Your task to perform on an android device: turn off improve location accuracy Image 0: 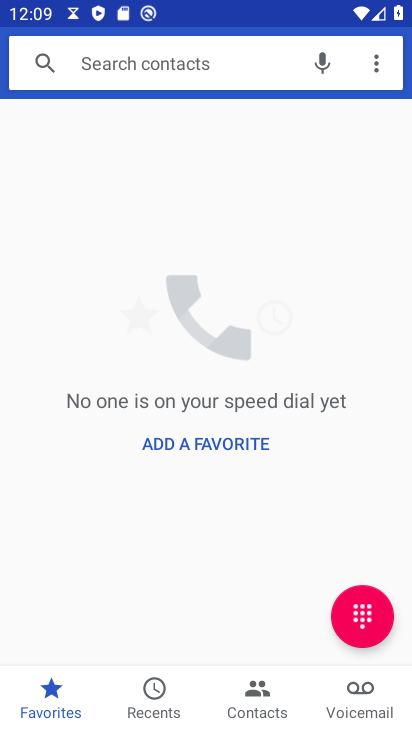
Step 0: press back button
Your task to perform on an android device: turn off improve location accuracy Image 1: 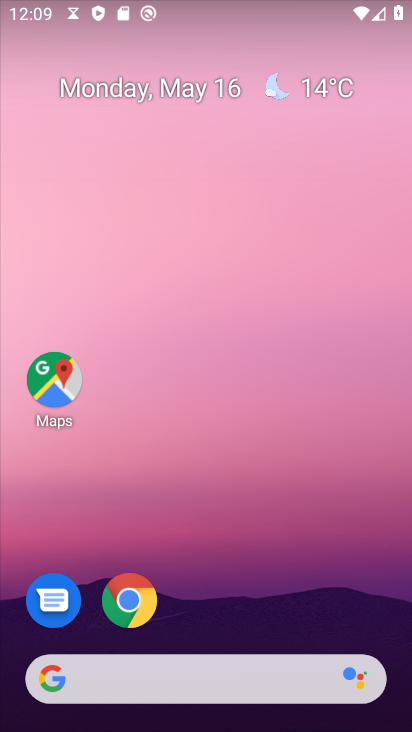
Step 1: drag from (249, 561) to (261, 29)
Your task to perform on an android device: turn off improve location accuracy Image 2: 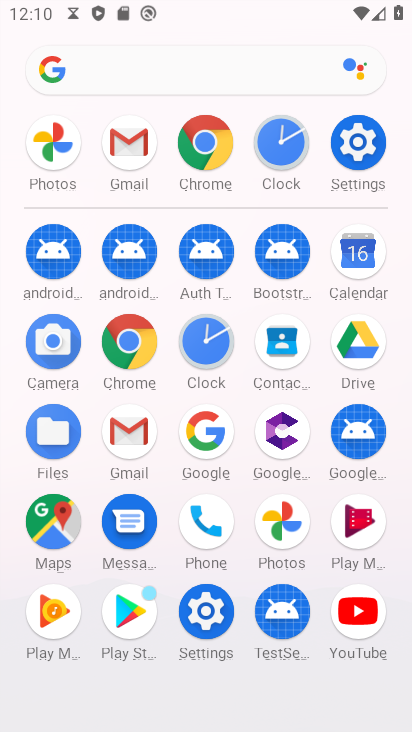
Step 2: drag from (7, 618) to (9, 277)
Your task to perform on an android device: turn off improve location accuracy Image 3: 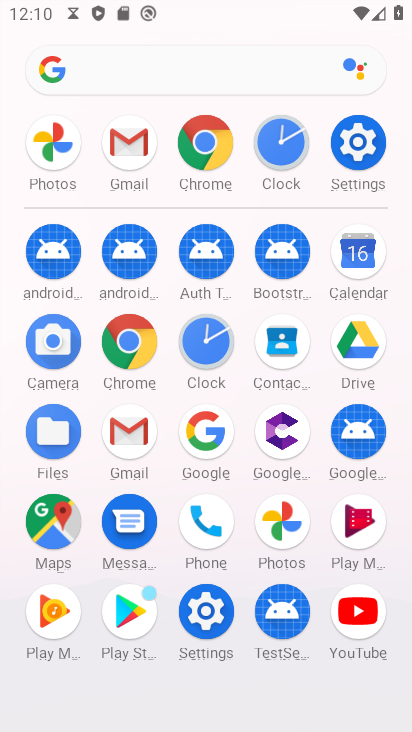
Step 3: click (205, 607)
Your task to perform on an android device: turn off improve location accuracy Image 4: 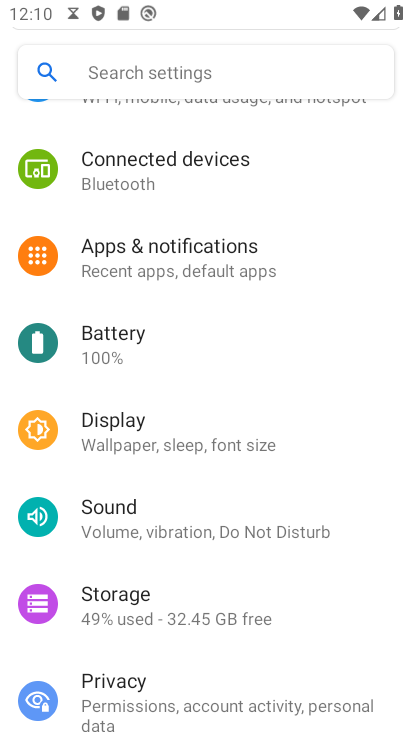
Step 4: drag from (250, 638) to (307, 185)
Your task to perform on an android device: turn off improve location accuracy Image 5: 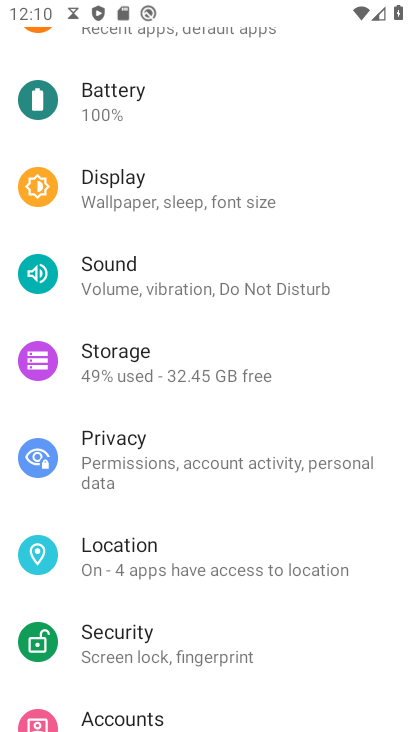
Step 5: drag from (221, 640) to (269, 203)
Your task to perform on an android device: turn off improve location accuracy Image 6: 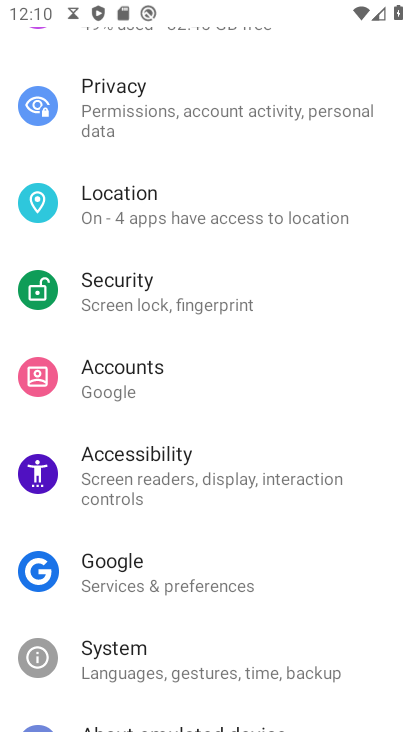
Step 6: drag from (278, 686) to (287, 275)
Your task to perform on an android device: turn off improve location accuracy Image 7: 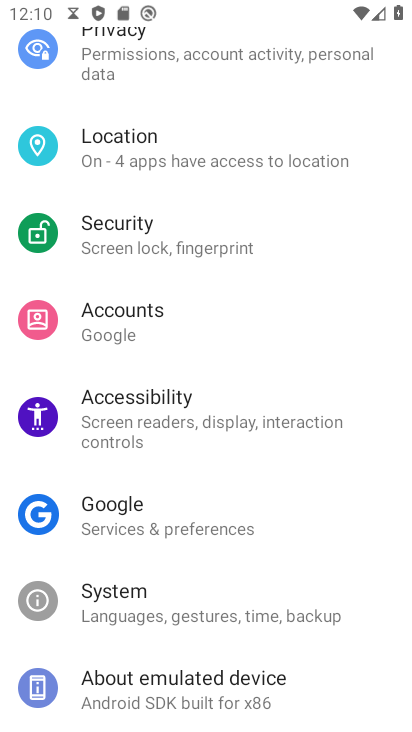
Step 7: drag from (238, 229) to (217, 517)
Your task to perform on an android device: turn off improve location accuracy Image 8: 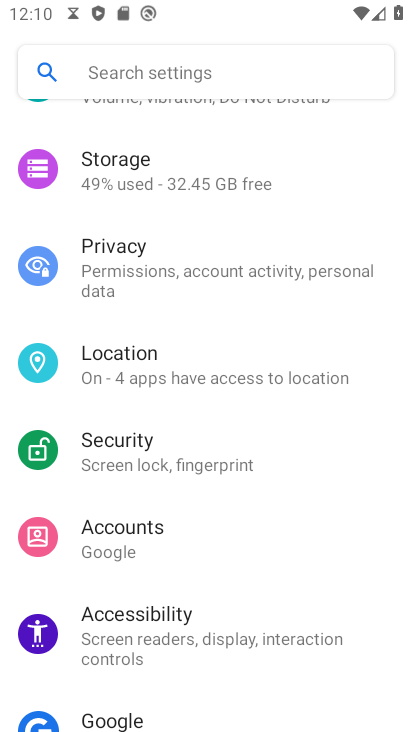
Step 8: click (166, 359)
Your task to perform on an android device: turn off improve location accuracy Image 9: 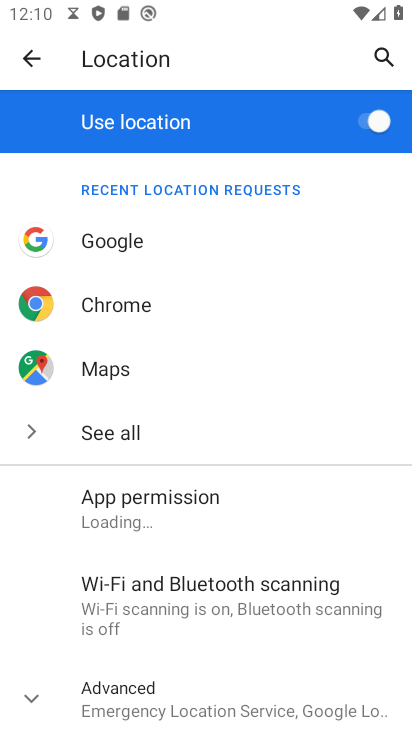
Step 9: drag from (193, 617) to (226, 250)
Your task to perform on an android device: turn off improve location accuracy Image 10: 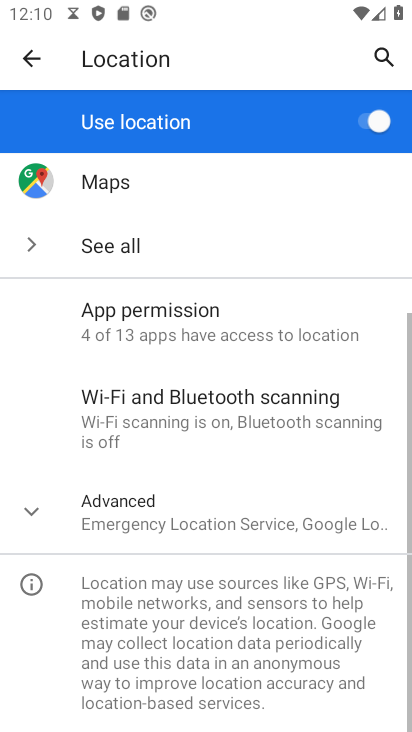
Step 10: click (96, 504)
Your task to perform on an android device: turn off improve location accuracy Image 11: 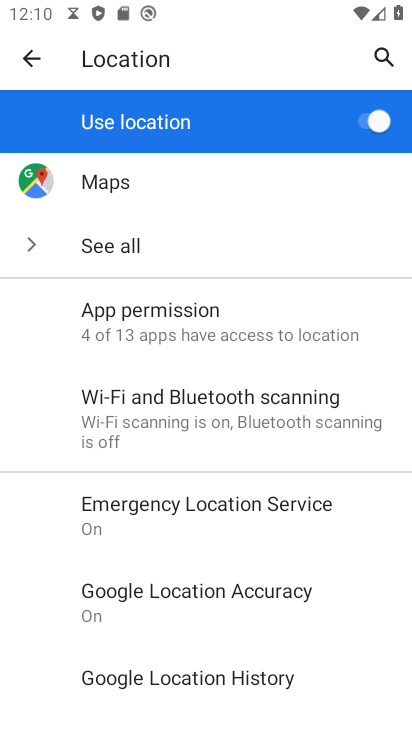
Step 11: click (270, 596)
Your task to perform on an android device: turn off improve location accuracy Image 12: 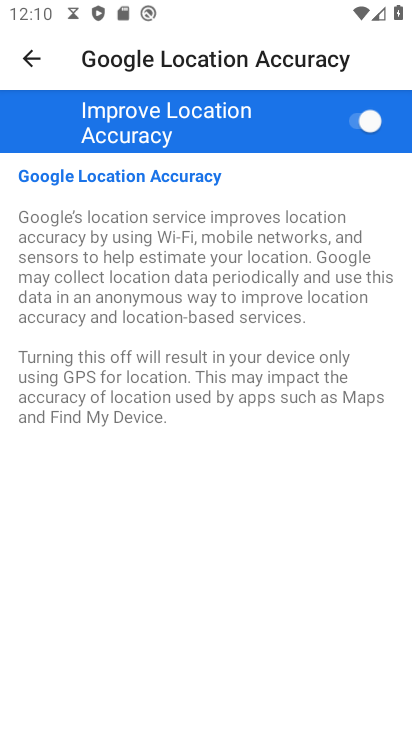
Step 12: click (362, 125)
Your task to perform on an android device: turn off improve location accuracy Image 13: 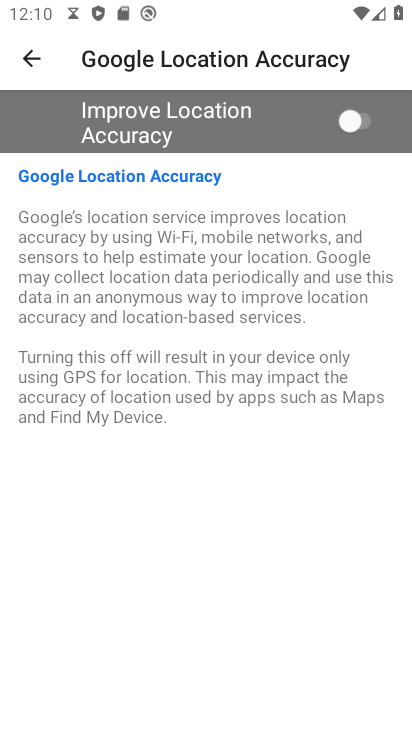
Step 13: task complete